Your task to perform on an android device: Do I have any events this weekend? Image 0: 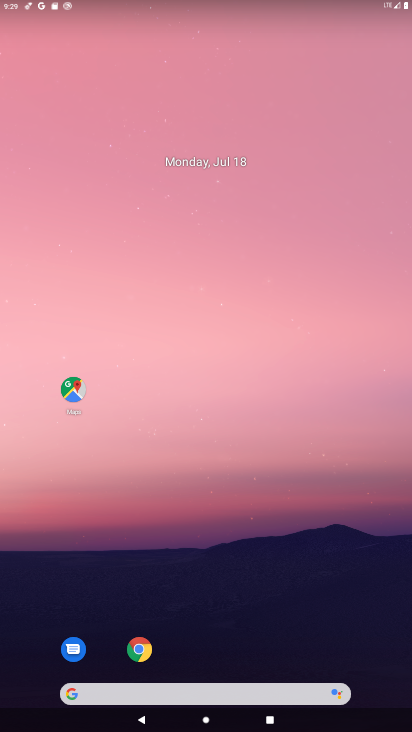
Step 0: drag from (169, 655) to (215, 484)
Your task to perform on an android device: Do I have any events this weekend? Image 1: 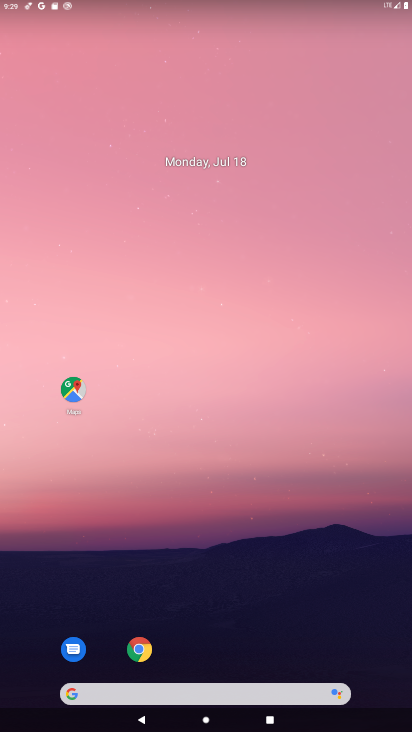
Step 1: drag from (209, 675) to (391, 158)
Your task to perform on an android device: Do I have any events this weekend? Image 2: 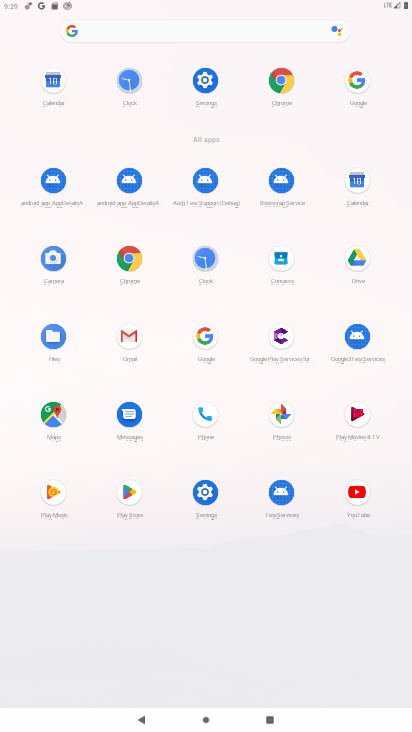
Step 2: click (362, 179)
Your task to perform on an android device: Do I have any events this weekend? Image 3: 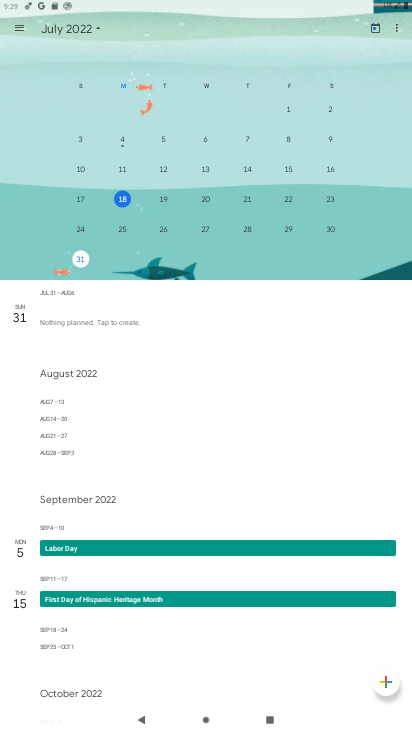
Step 3: click (160, 201)
Your task to perform on an android device: Do I have any events this weekend? Image 4: 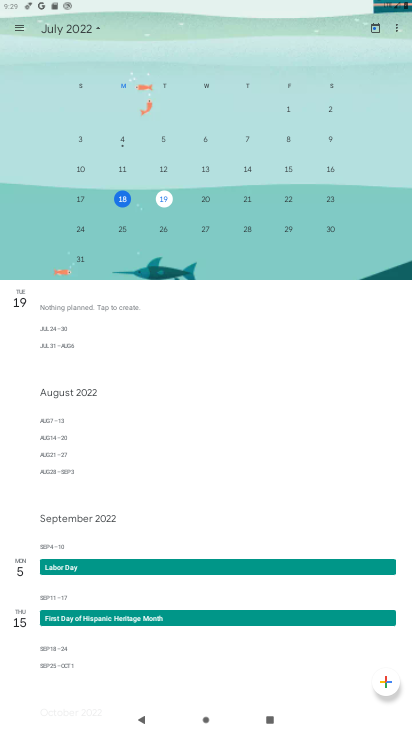
Step 4: click (209, 202)
Your task to perform on an android device: Do I have any events this weekend? Image 5: 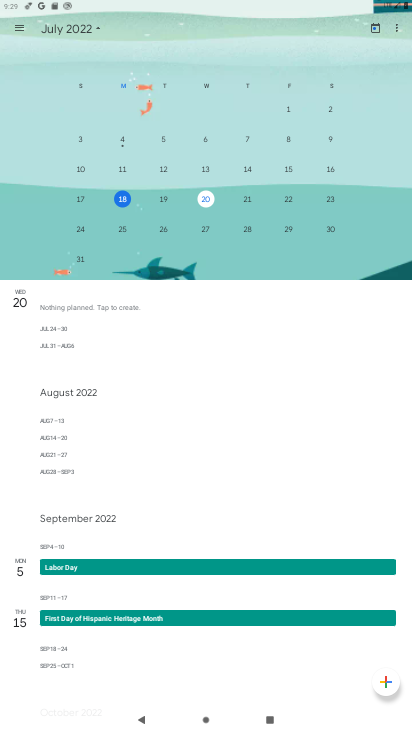
Step 5: click (248, 204)
Your task to perform on an android device: Do I have any events this weekend? Image 6: 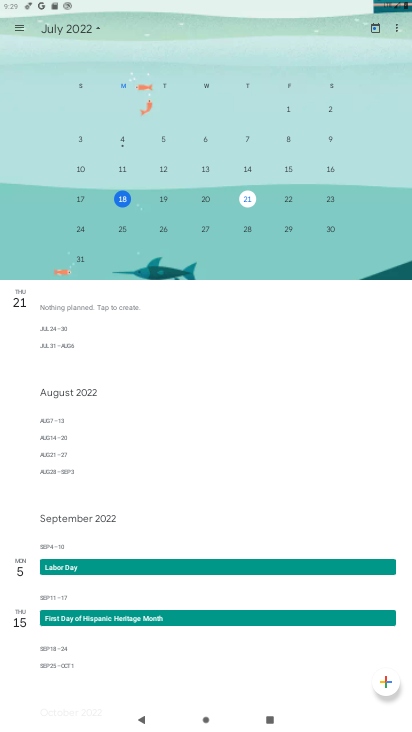
Step 6: click (285, 197)
Your task to perform on an android device: Do I have any events this weekend? Image 7: 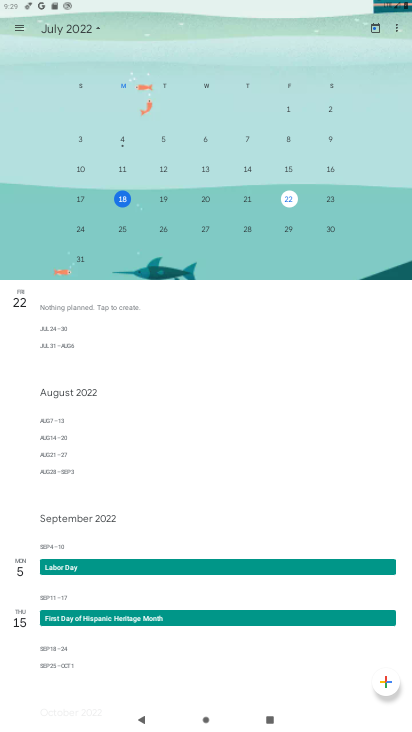
Step 7: click (333, 200)
Your task to perform on an android device: Do I have any events this weekend? Image 8: 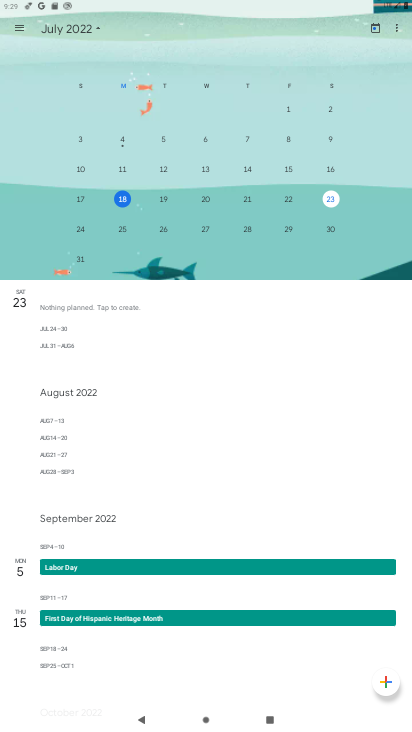
Step 8: task complete